Your task to perform on an android device: uninstall "Expedia: Hotels, Flights & Car" Image 0: 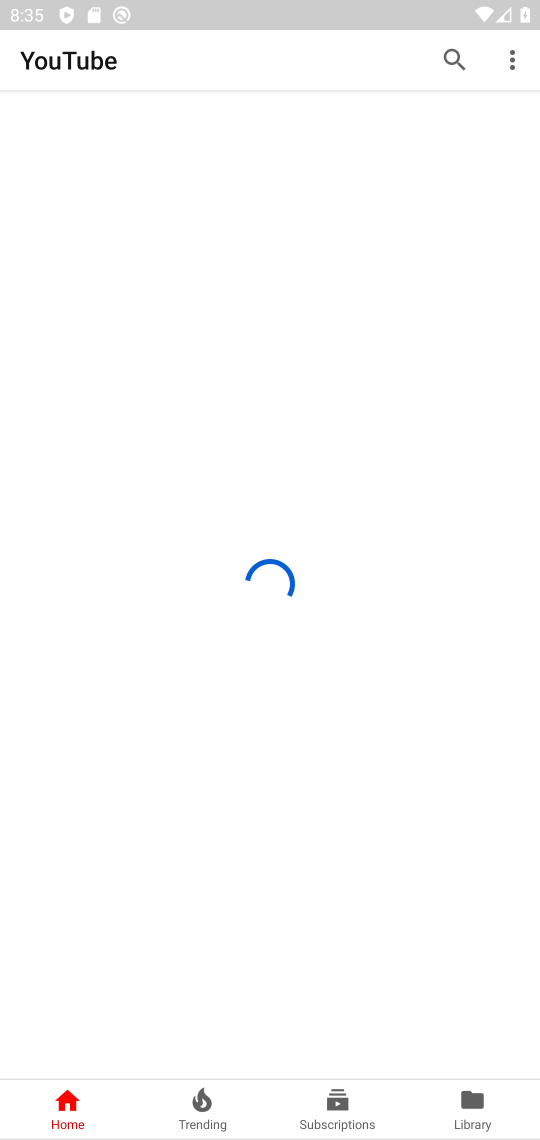
Step 0: press home button
Your task to perform on an android device: uninstall "Expedia: Hotels, Flights & Car" Image 1: 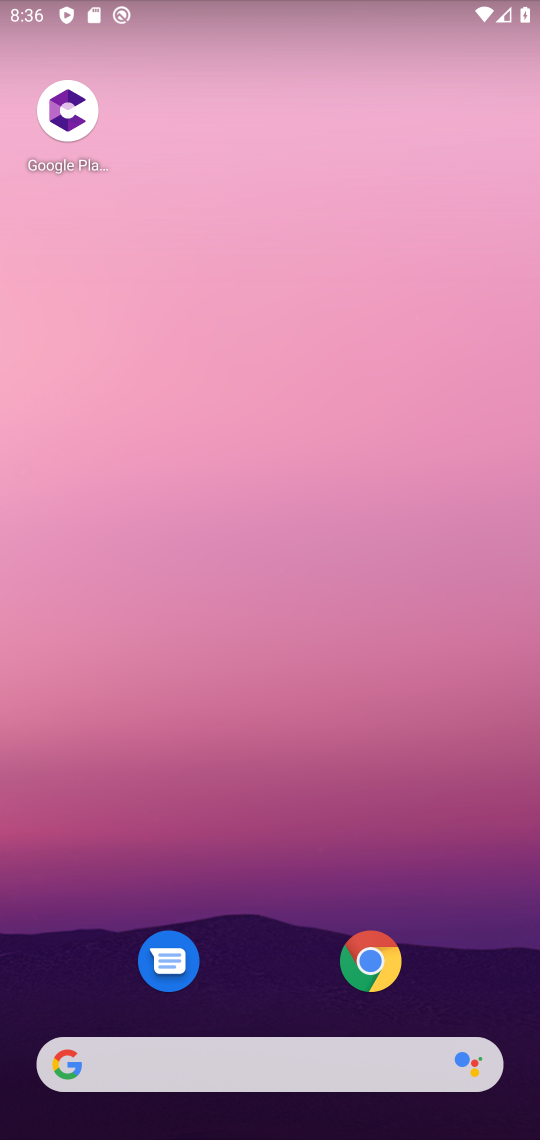
Step 1: drag from (400, 814) to (437, 6)
Your task to perform on an android device: uninstall "Expedia: Hotels, Flights & Car" Image 2: 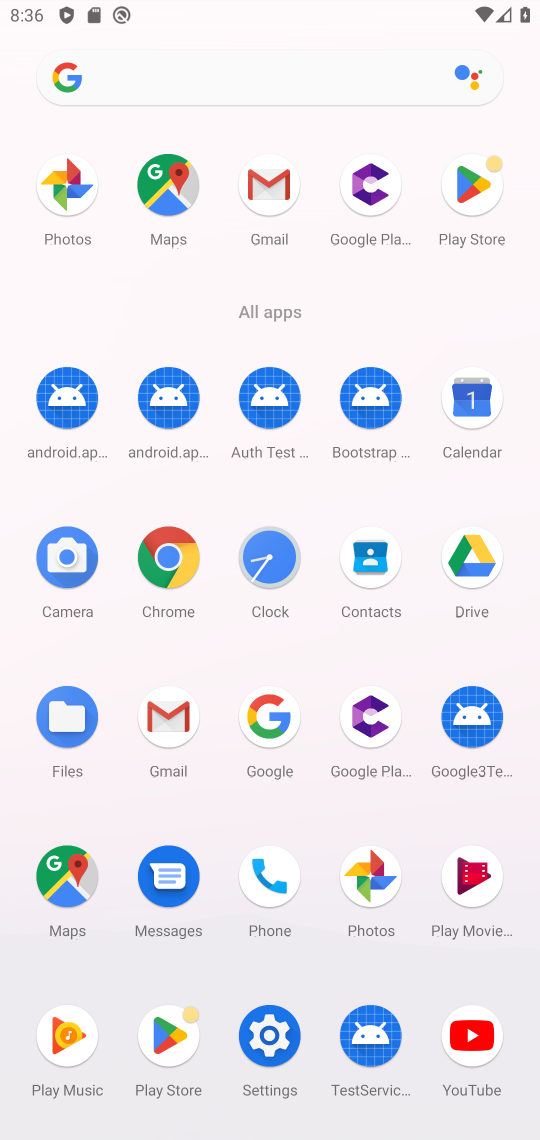
Step 2: click (471, 196)
Your task to perform on an android device: uninstall "Expedia: Hotels, Flights & Car" Image 3: 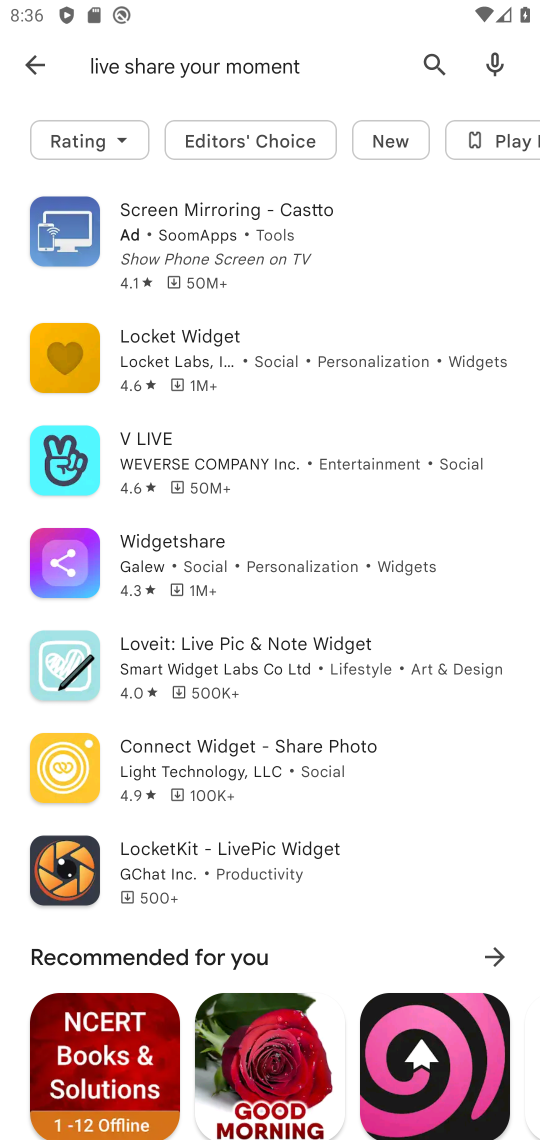
Step 3: click (37, 64)
Your task to perform on an android device: uninstall "Expedia: Hotels, Flights & Car" Image 4: 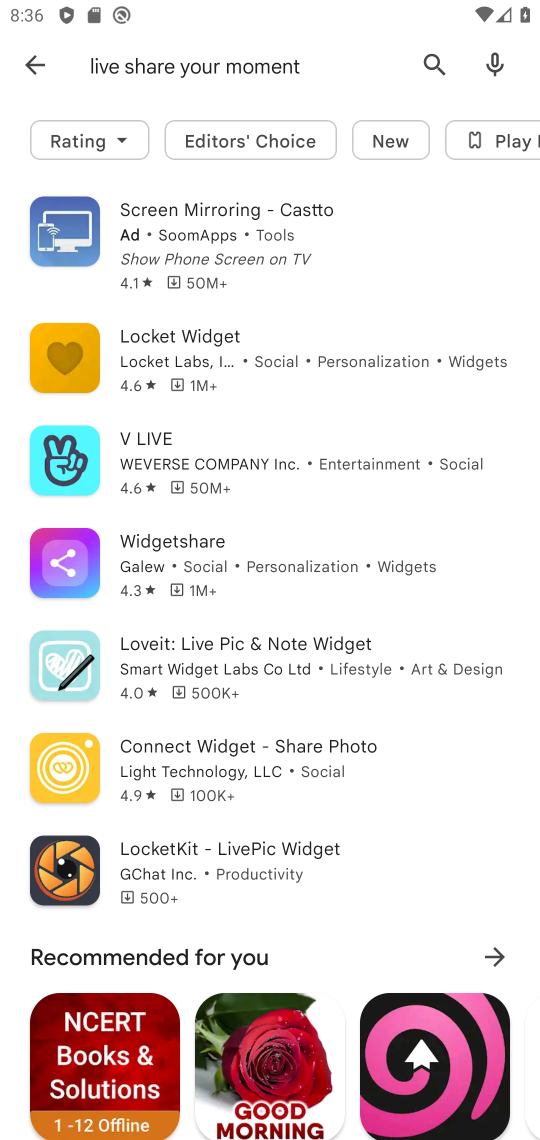
Step 4: click (39, 63)
Your task to perform on an android device: uninstall "Expedia: Hotels, Flights & Car" Image 5: 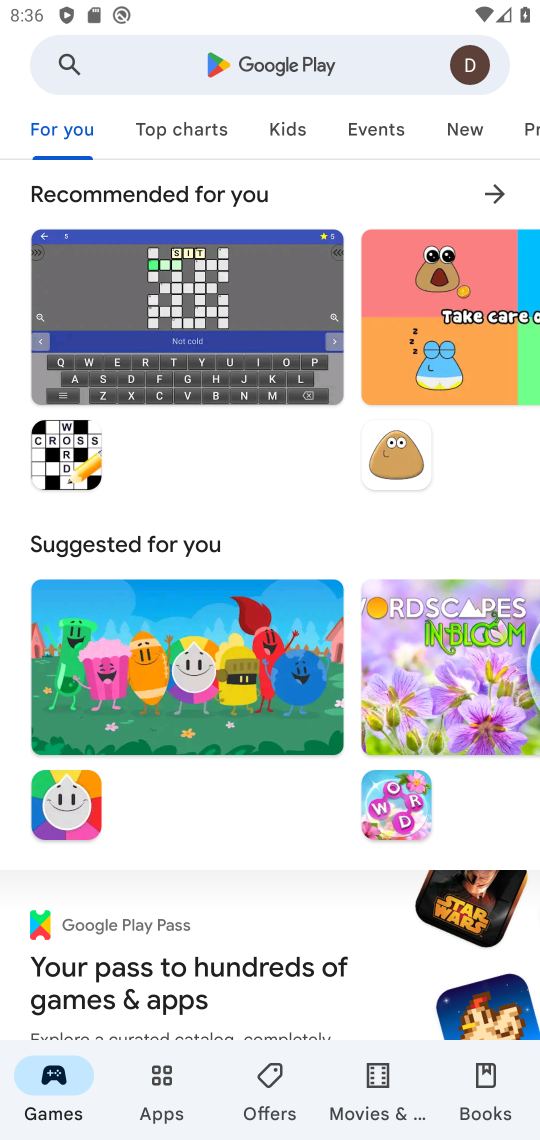
Step 5: click (188, 44)
Your task to perform on an android device: uninstall "Expedia: Hotels, Flights & Car" Image 6: 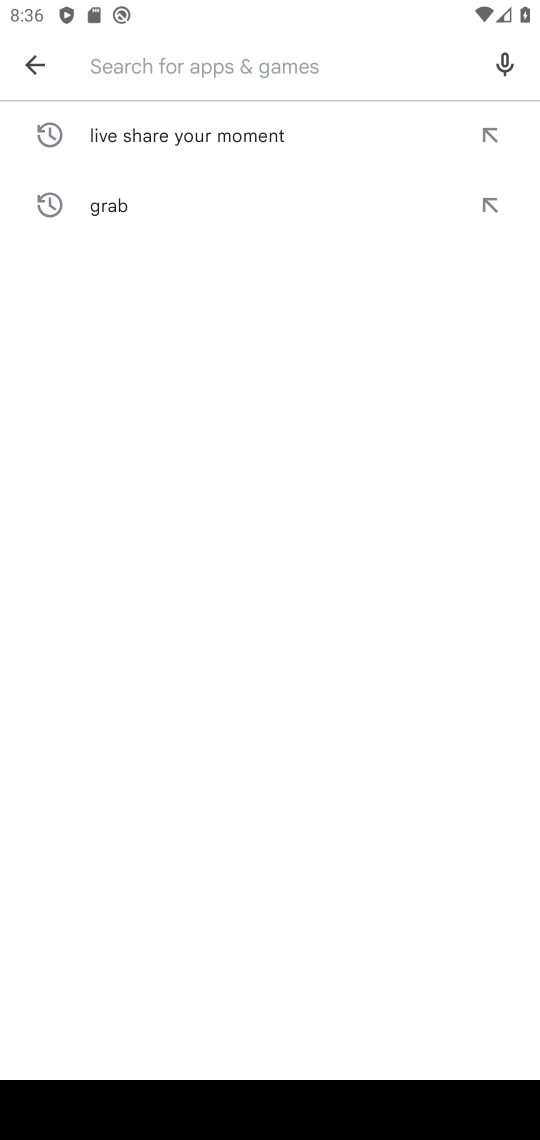
Step 6: type "Expedia: Hotels, Flights & Car"
Your task to perform on an android device: uninstall "Expedia: Hotels, Flights & Car" Image 7: 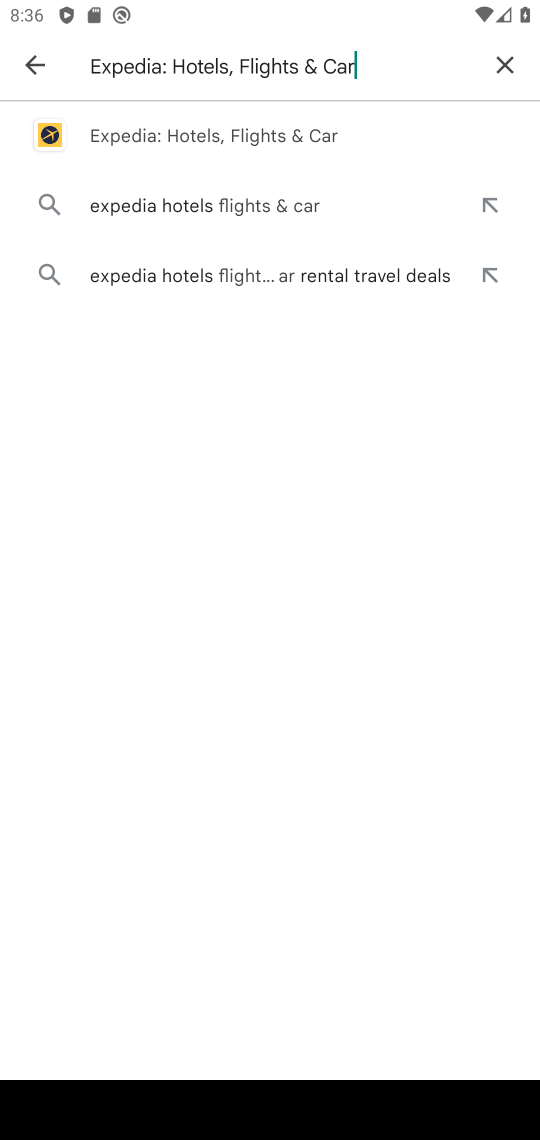
Step 7: click (258, 122)
Your task to perform on an android device: uninstall "Expedia: Hotels, Flights & Car" Image 8: 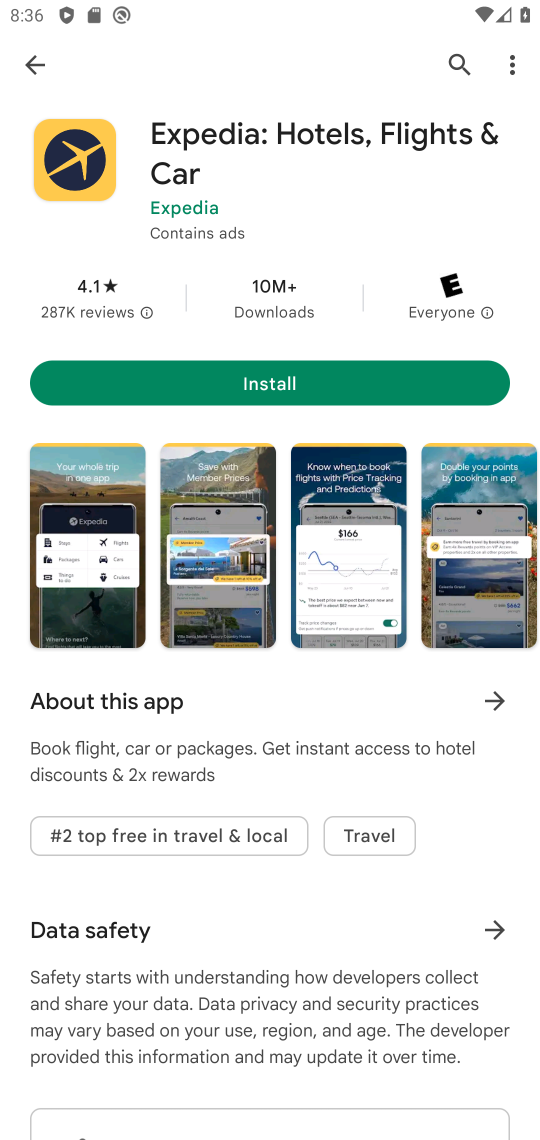
Step 8: task complete